Your task to perform on an android device: change alarm snooze length Image 0: 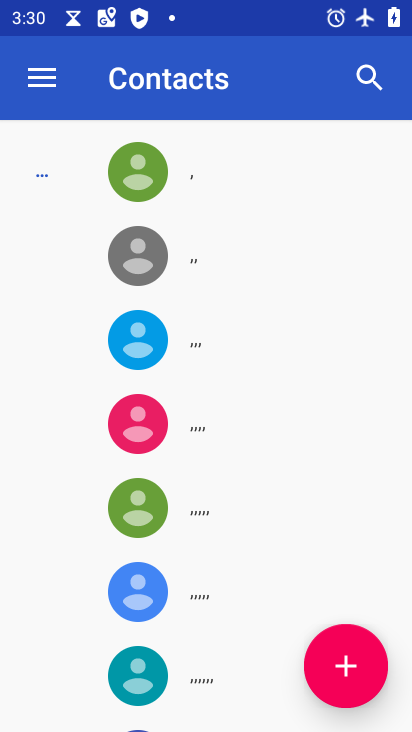
Step 0: press home button
Your task to perform on an android device: change alarm snooze length Image 1: 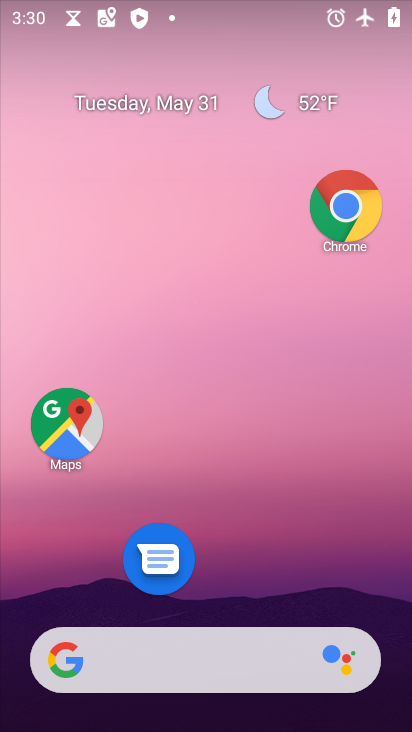
Step 1: drag from (36, 509) to (218, 129)
Your task to perform on an android device: change alarm snooze length Image 2: 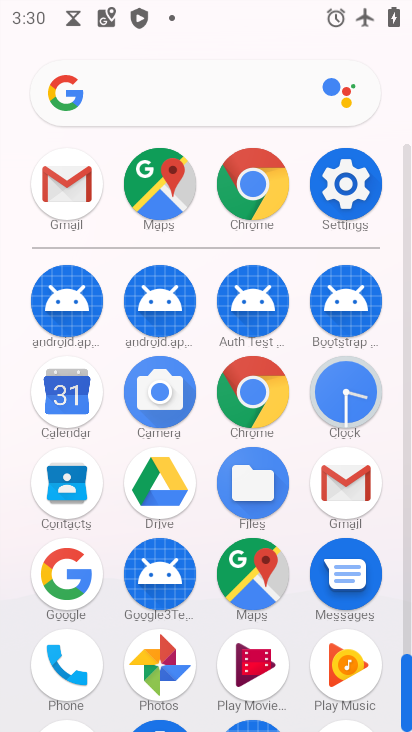
Step 2: click (330, 403)
Your task to perform on an android device: change alarm snooze length Image 3: 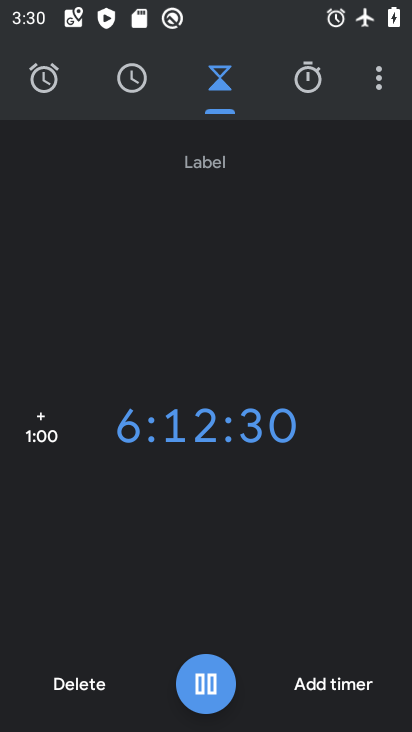
Step 3: click (385, 81)
Your task to perform on an android device: change alarm snooze length Image 4: 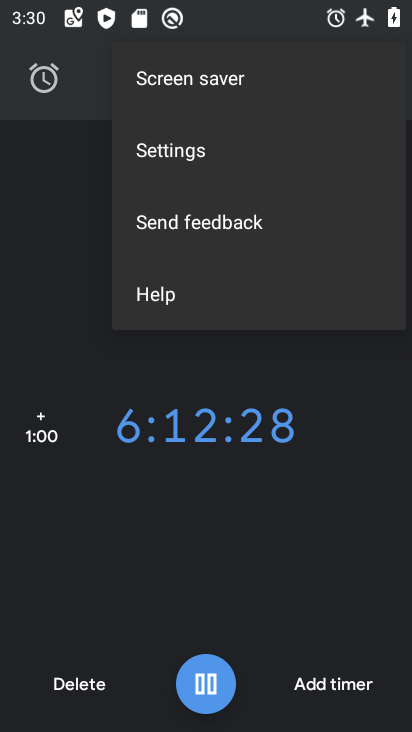
Step 4: click (201, 147)
Your task to perform on an android device: change alarm snooze length Image 5: 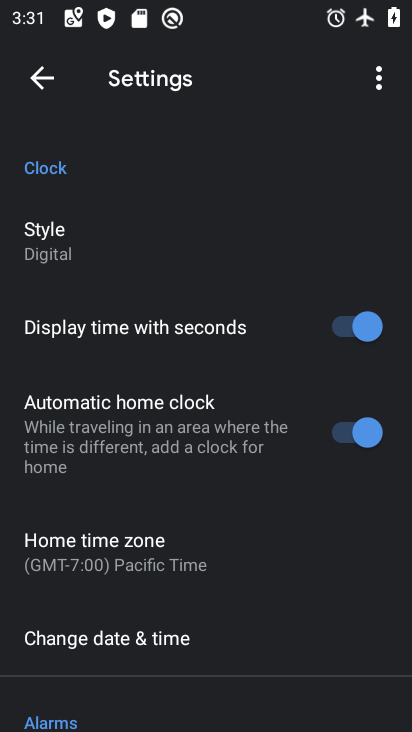
Step 5: drag from (13, 453) to (160, 173)
Your task to perform on an android device: change alarm snooze length Image 6: 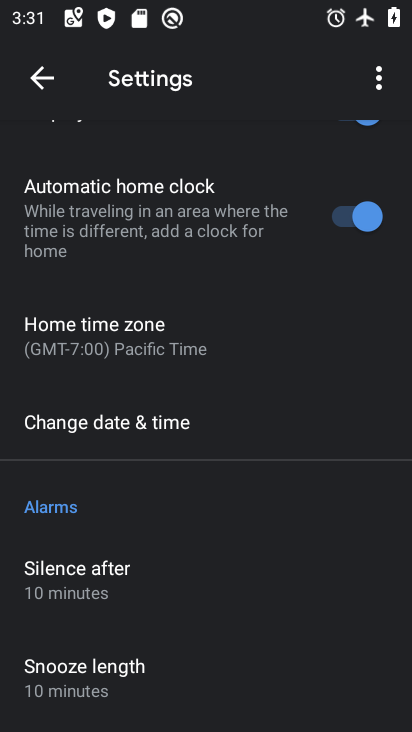
Step 6: click (97, 673)
Your task to perform on an android device: change alarm snooze length Image 7: 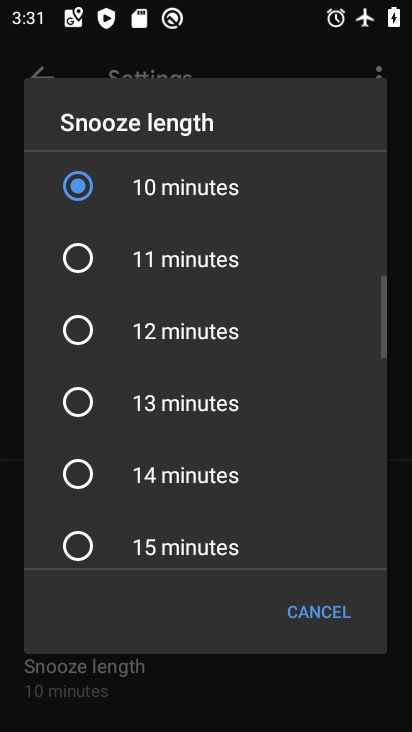
Step 7: click (105, 264)
Your task to perform on an android device: change alarm snooze length Image 8: 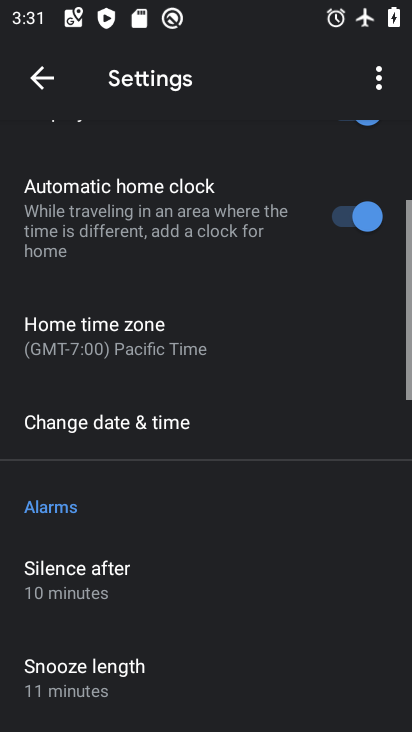
Step 8: task complete